Your task to perform on an android device: Search for seafood restaurants on Google Maps Image 0: 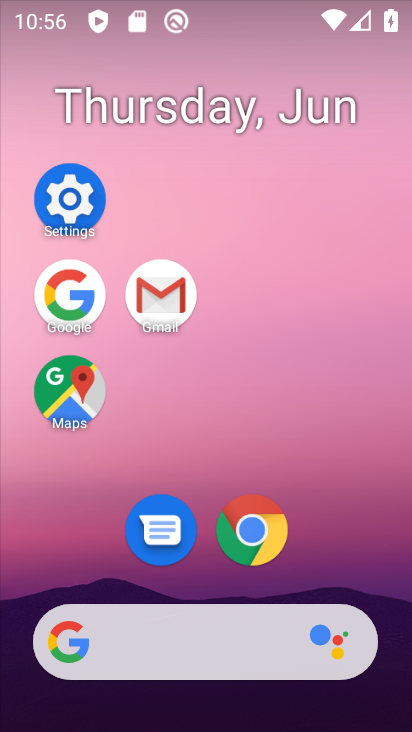
Step 0: click (89, 408)
Your task to perform on an android device: Search for seafood restaurants on Google Maps Image 1: 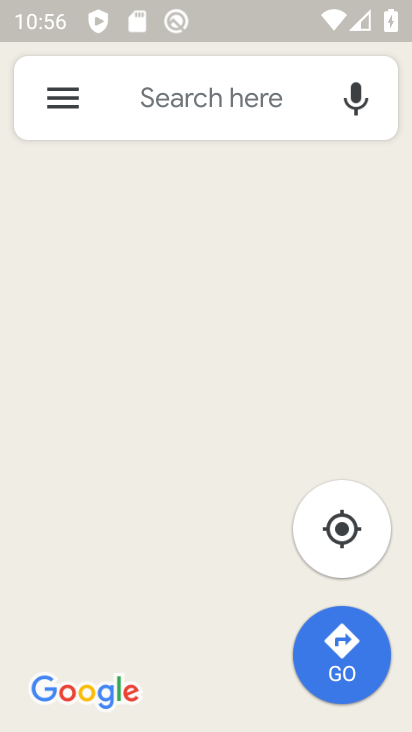
Step 1: click (215, 87)
Your task to perform on an android device: Search for seafood restaurants on Google Maps Image 2: 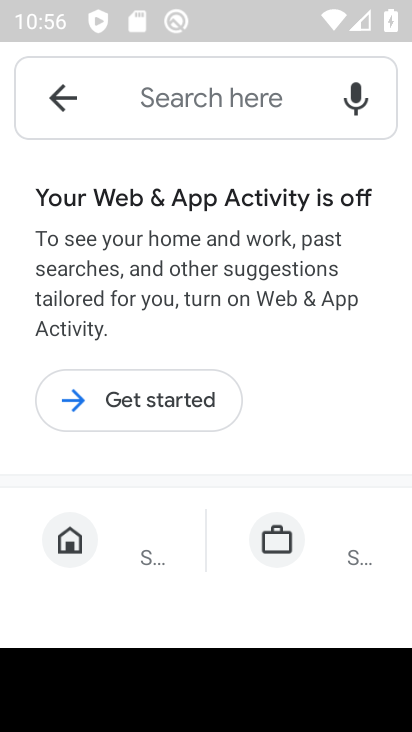
Step 2: click (163, 399)
Your task to perform on an android device: Search for seafood restaurants on Google Maps Image 3: 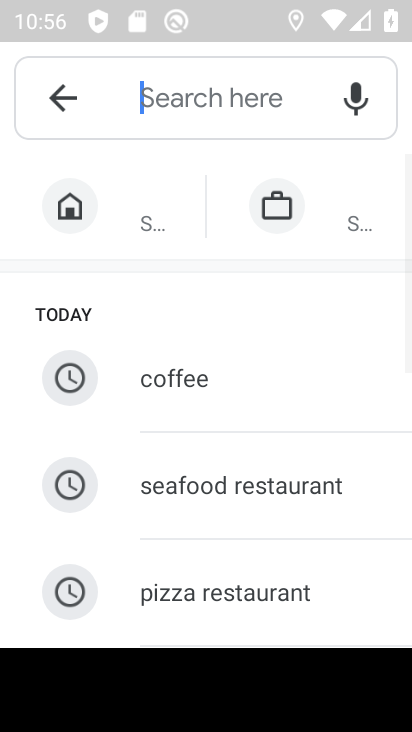
Step 3: click (204, 105)
Your task to perform on an android device: Search for seafood restaurants on Google Maps Image 4: 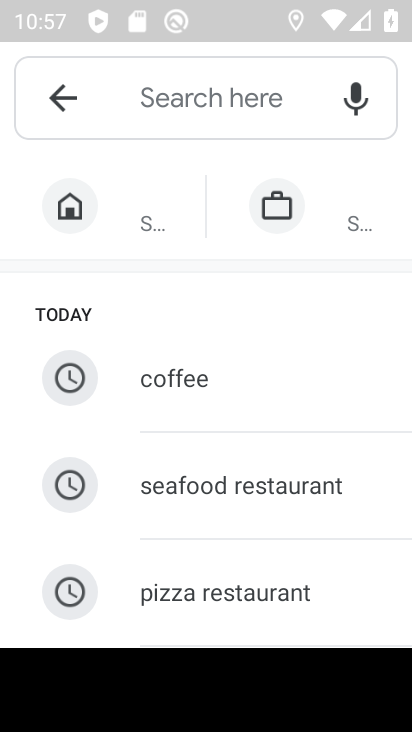
Step 4: click (251, 507)
Your task to perform on an android device: Search for seafood restaurants on Google Maps Image 5: 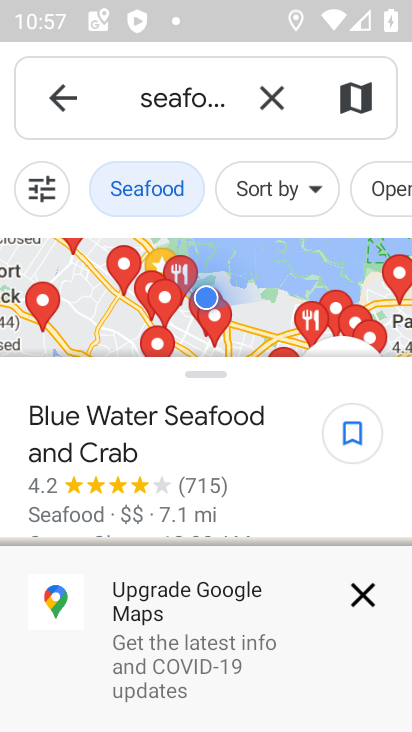
Step 5: task complete